Your task to perform on an android device: Search for sushi restaurants on Maps Image 0: 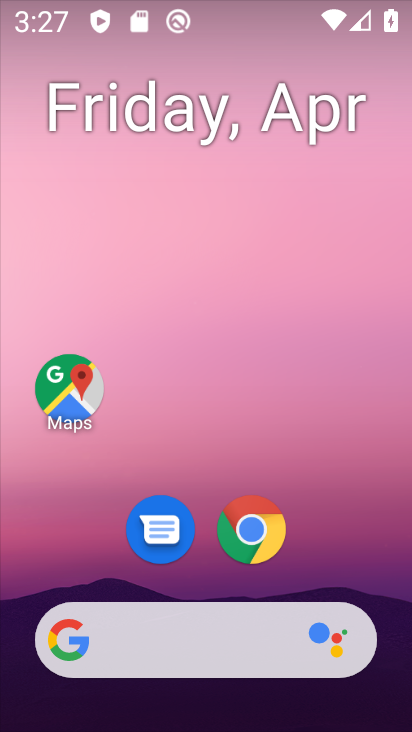
Step 0: drag from (331, 547) to (370, 97)
Your task to perform on an android device: Search for sushi restaurants on Maps Image 1: 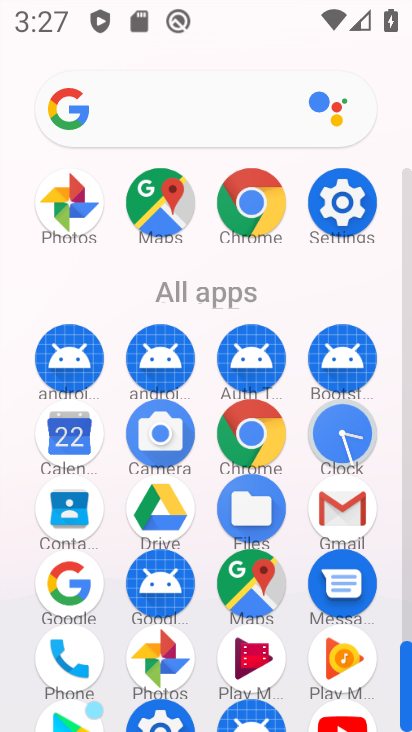
Step 1: click (159, 211)
Your task to perform on an android device: Search for sushi restaurants on Maps Image 2: 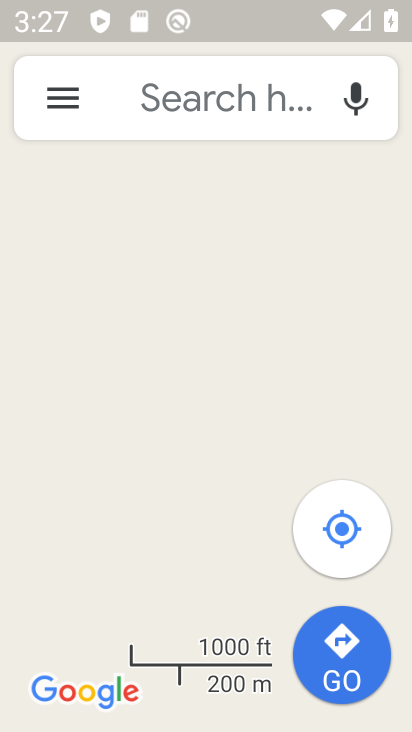
Step 2: click (194, 113)
Your task to perform on an android device: Search for sushi restaurants on Maps Image 3: 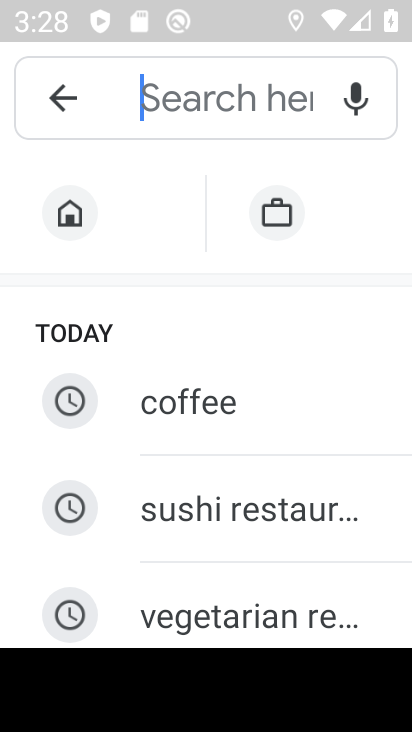
Step 3: type "sushi restaurants"
Your task to perform on an android device: Search for sushi restaurants on Maps Image 4: 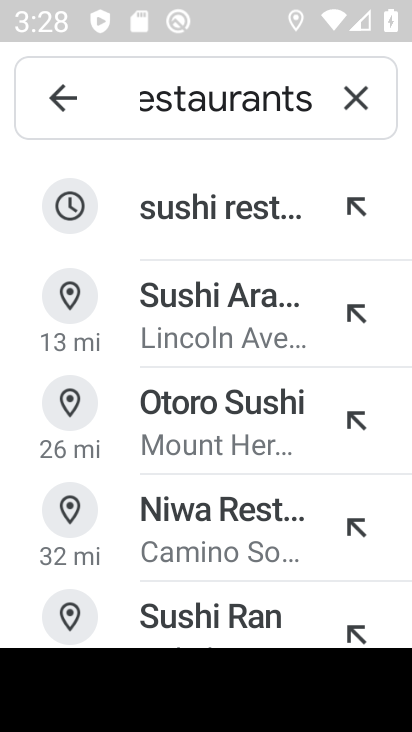
Step 4: click (229, 232)
Your task to perform on an android device: Search for sushi restaurants on Maps Image 5: 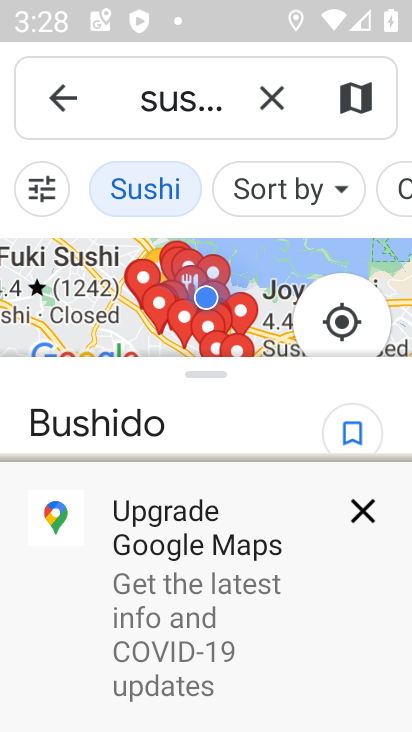
Step 5: task complete